Your task to perform on an android device: toggle improve location accuracy Image 0: 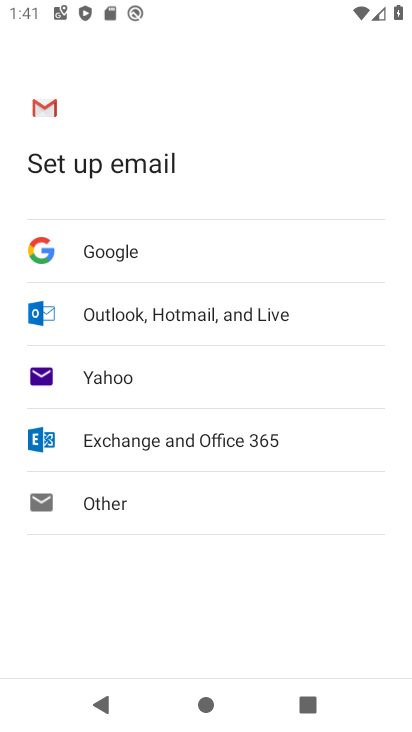
Step 0: press home button
Your task to perform on an android device: toggle improve location accuracy Image 1: 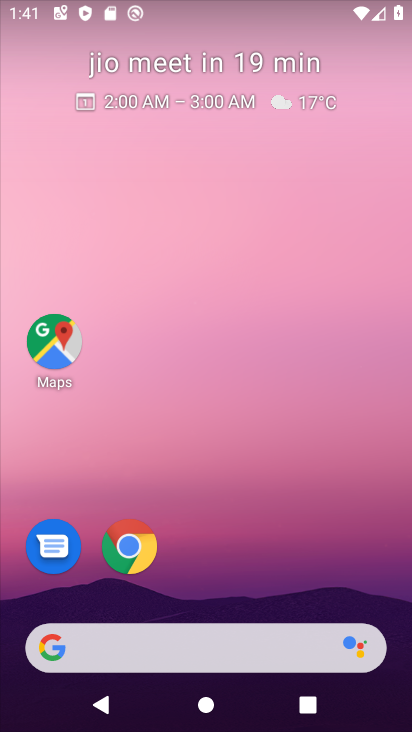
Step 1: drag from (310, 573) to (298, 68)
Your task to perform on an android device: toggle improve location accuracy Image 2: 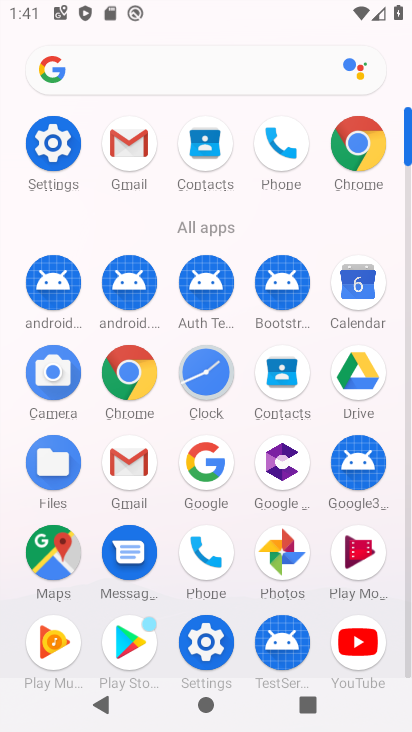
Step 2: click (55, 139)
Your task to perform on an android device: toggle improve location accuracy Image 3: 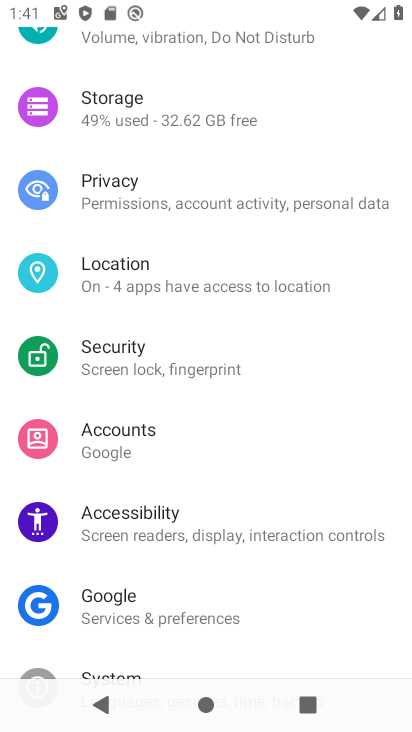
Step 3: click (159, 295)
Your task to perform on an android device: toggle improve location accuracy Image 4: 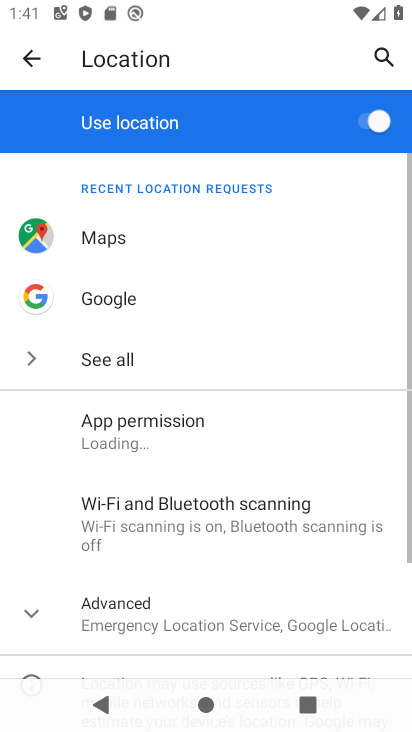
Step 4: task complete